Your task to perform on an android device: open app "Microsoft Authenticator" (install if not already installed) Image 0: 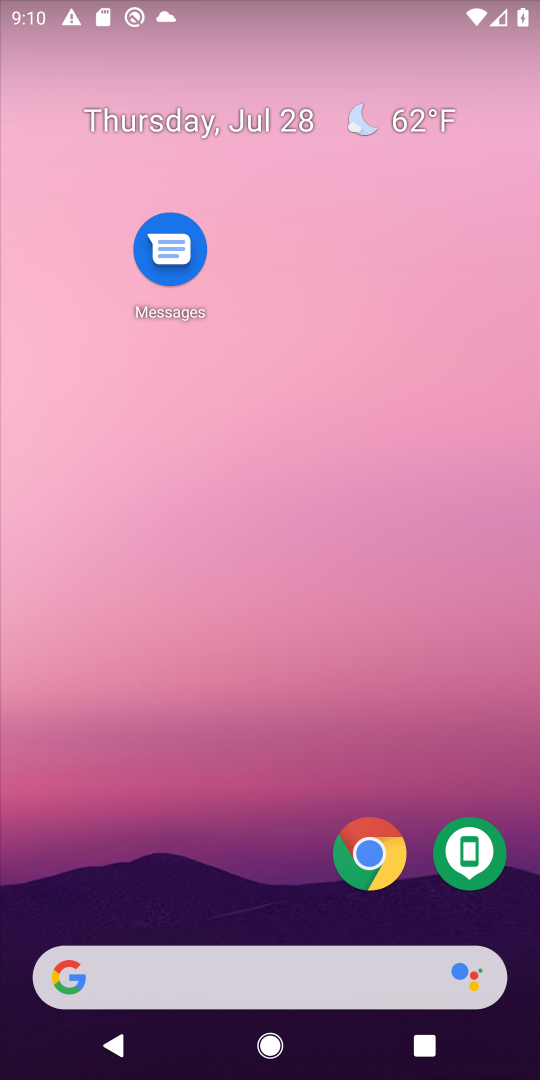
Step 0: drag from (210, 862) to (225, 112)
Your task to perform on an android device: open app "Microsoft Authenticator" (install if not already installed) Image 1: 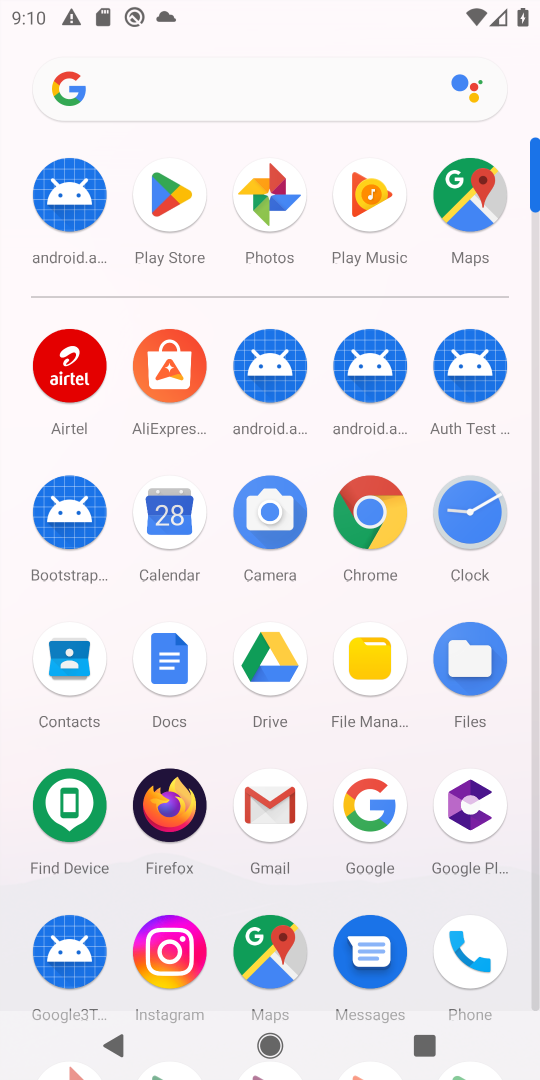
Step 1: click (191, 198)
Your task to perform on an android device: open app "Microsoft Authenticator" (install if not already installed) Image 2: 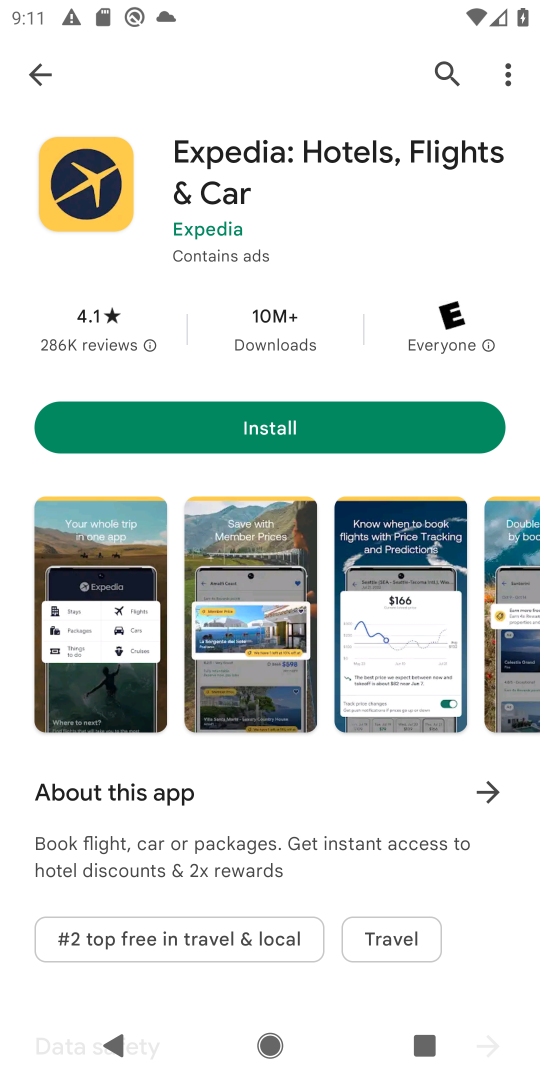
Step 2: click (54, 69)
Your task to perform on an android device: open app "Microsoft Authenticator" (install if not already installed) Image 3: 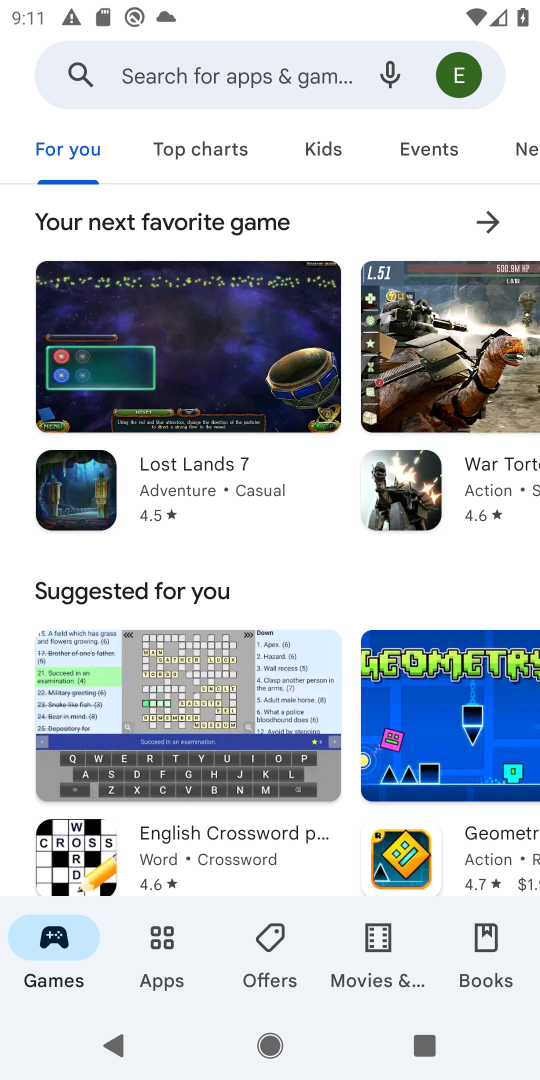
Step 3: click (176, 70)
Your task to perform on an android device: open app "Microsoft Authenticator" (install if not already installed) Image 4: 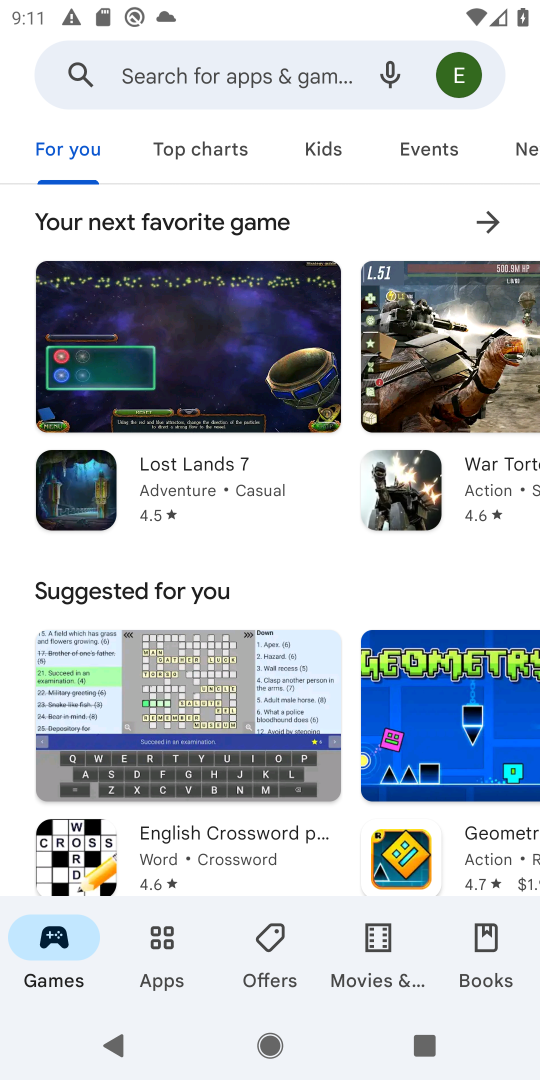
Step 4: click (176, 70)
Your task to perform on an android device: open app "Microsoft Authenticator" (install if not already installed) Image 5: 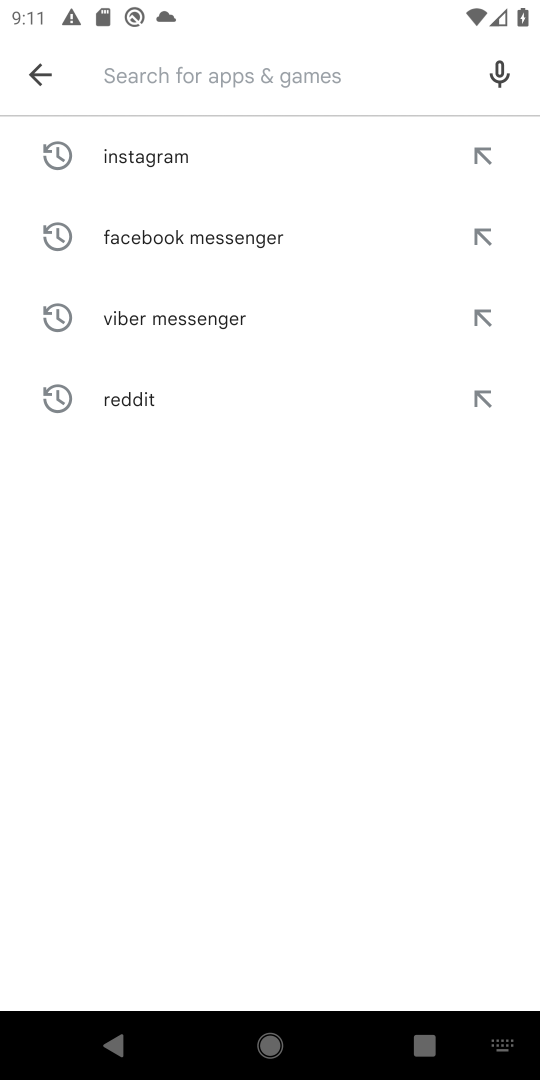
Step 5: type "Microsoft Authenticator"
Your task to perform on an android device: open app "Microsoft Authenticator" (install if not already installed) Image 6: 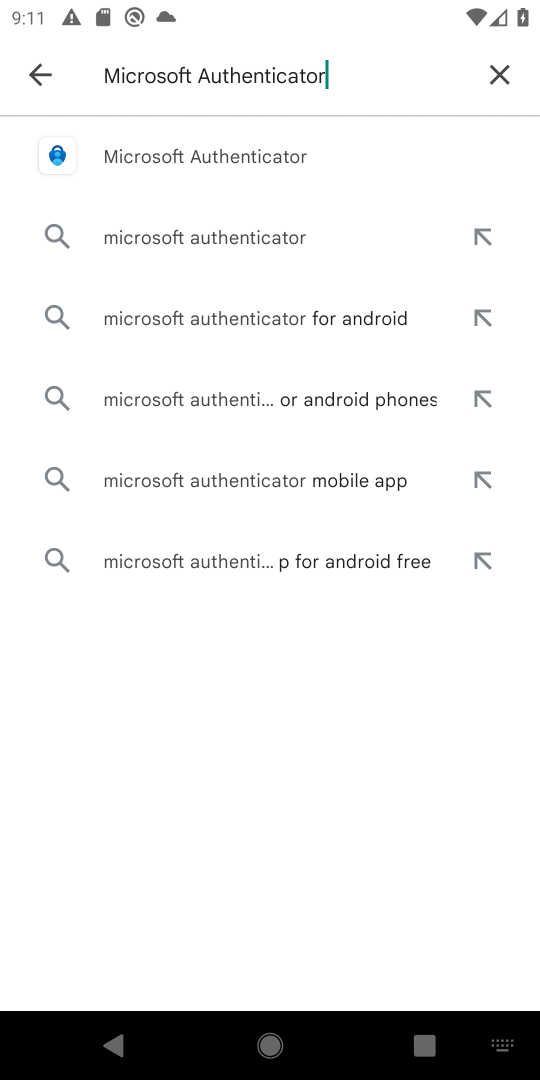
Step 6: click (228, 157)
Your task to perform on an android device: open app "Microsoft Authenticator" (install if not already installed) Image 7: 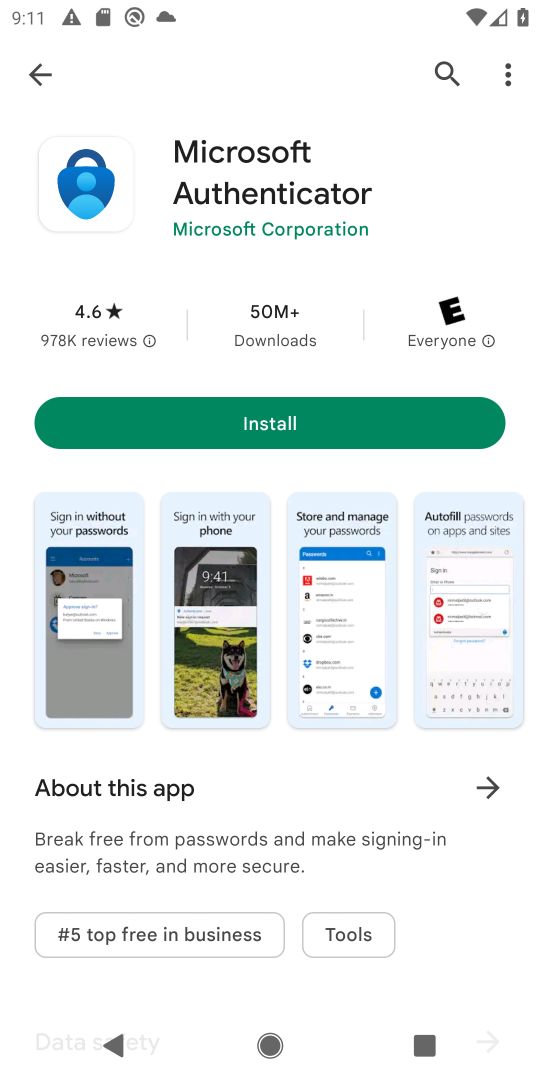
Step 7: click (279, 413)
Your task to perform on an android device: open app "Microsoft Authenticator" (install if not already installed) Image 8: 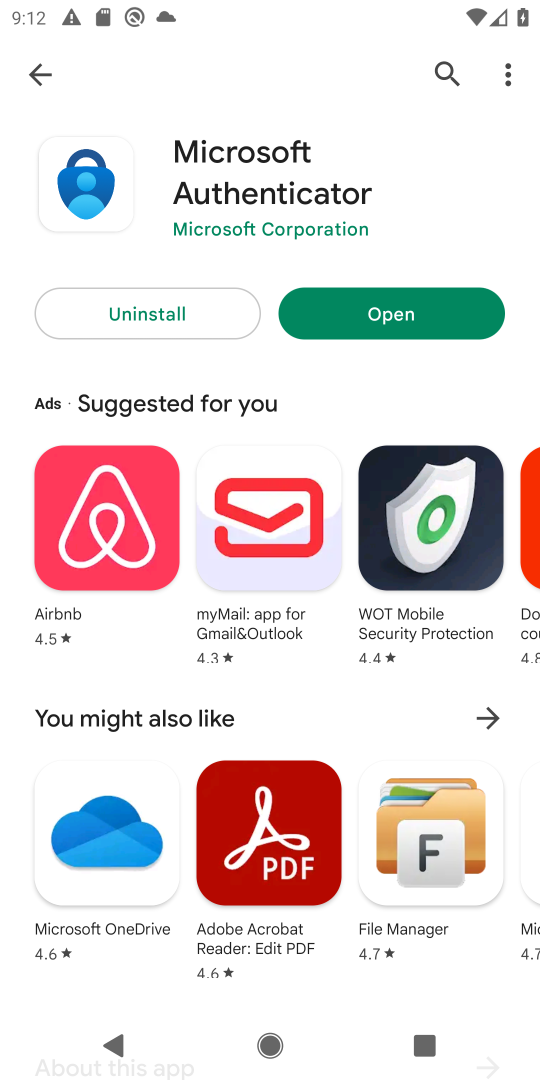
Step 8: click (374, 293)
Your task to perform on an android device: open app "Microsoft Authenticator" (install if not already installed) Image 9: 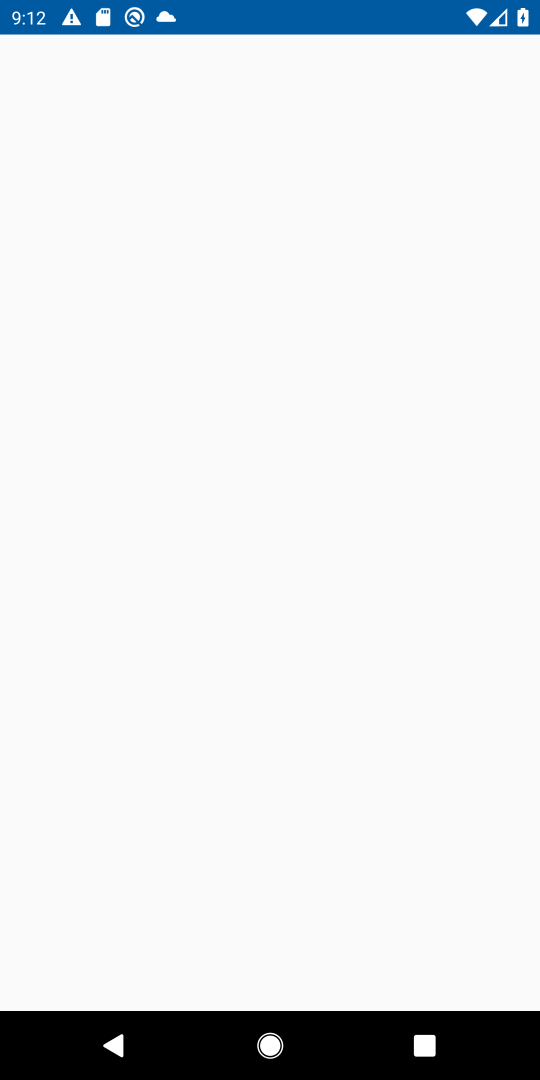
Step 9: task complete